Your task to perform on an android device: Open privacy settings Image 0: 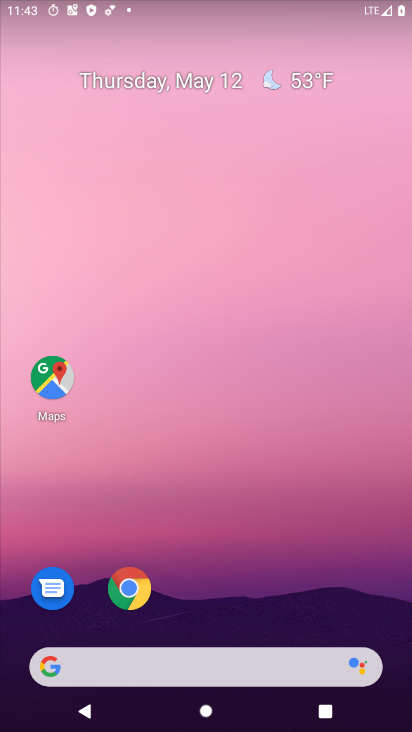
Step 0: drag from (281, 579) to (263, 120)
Your task to perform on an android device: Open privacy settings Image 1: 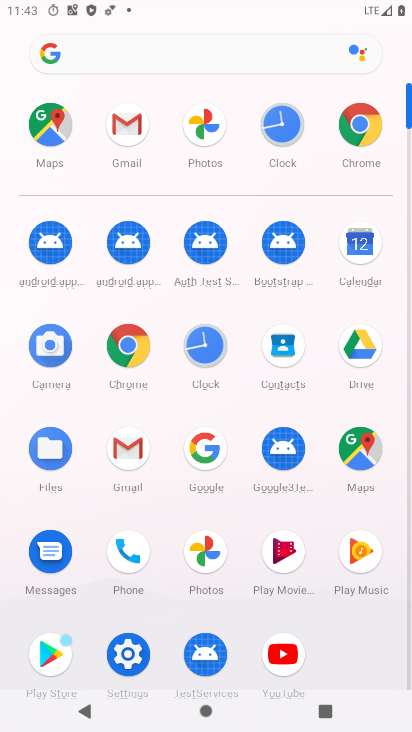
Step 1: click (126, 650)
Your task to perform on an android device: Open privacy settings Image 2: 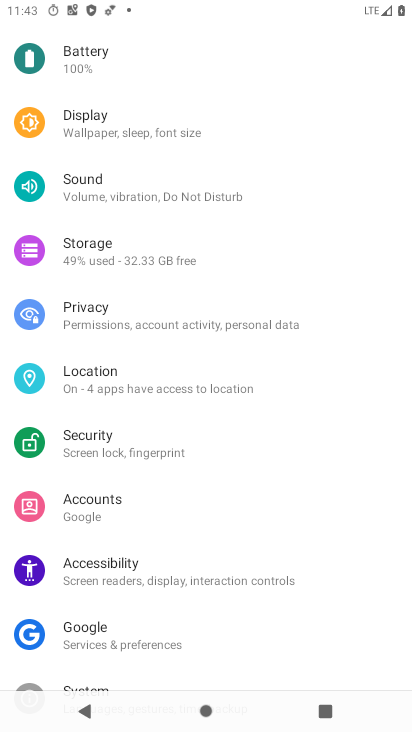
Step 2: drag from (184, 573) to (226, 240)
Your task to perform on an android device: Open privacy settings Image 3: 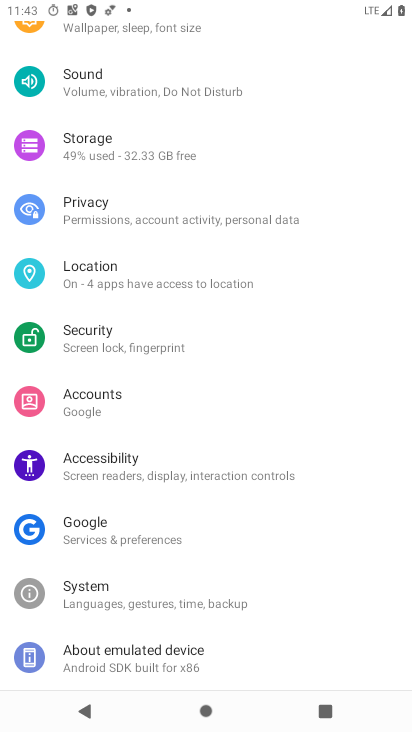
Step 3: click (161, 205)
Your task to perform on an android device: Open privacy settings Image 4: 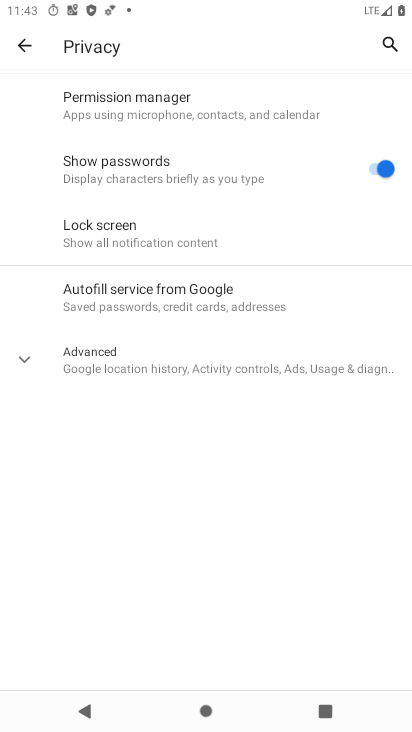
Step 4: task complete